Your task to perform on an android device: Open Amazon Image 0: 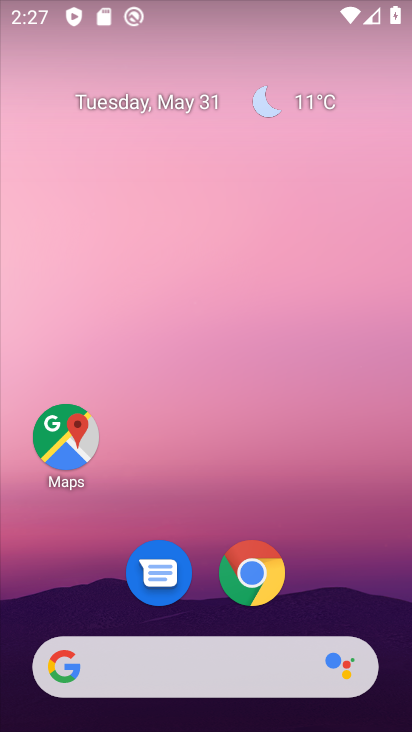
Step 0: click (260, 583)
Your task to perform on an android device: Open Amazon Image 1: 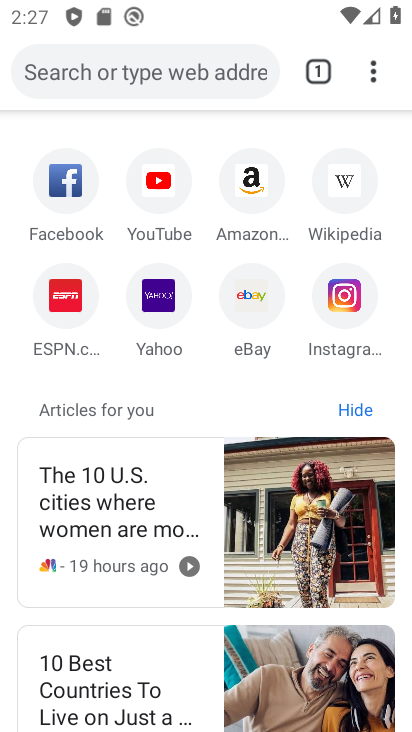
Step 1: click (253, 181)
Your task to perform on an android device: Open Amazon Image 2: 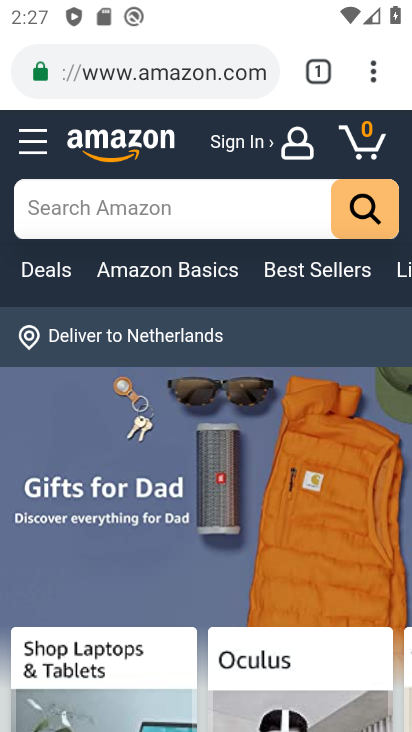
Step 2: task complete